Your task to perform on an android device: turn vacation reply on in the gmail app Image 0: 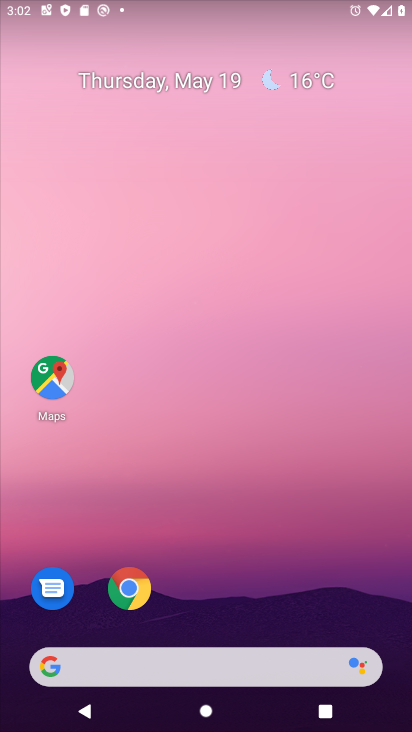
Step 0: drag from (223, 589) to (203, 80)
Your task to perform on an android device: turn vacation reply on in the gmail app Image 1: 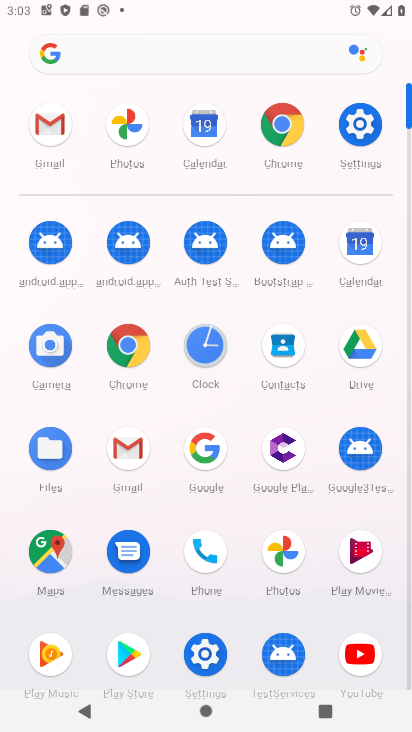
Step 1: click (47, 129)
Your task to perform on an android device: turn vacation reply on in the gmail app Image 2: 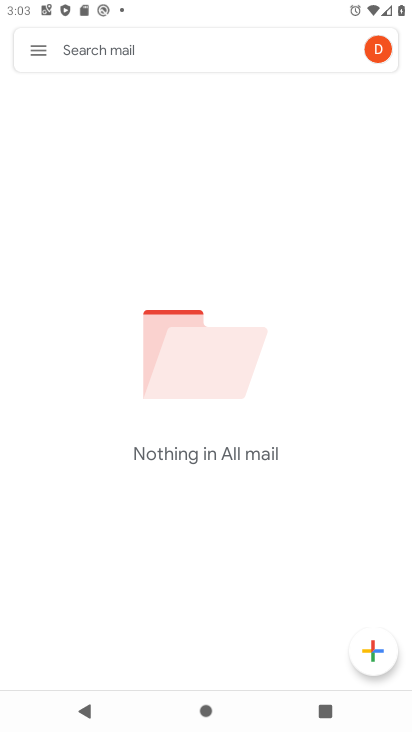
Step 2: click (39, 62)
Your task to perform on an android device: turn vacation reply on in the gmail app Image 3: 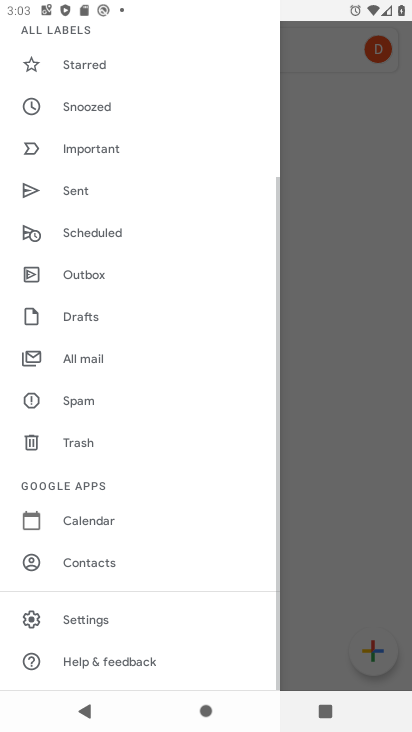
Step 3: click (102, 609)
Your task to perform on an android device: turn vacation reply on in the gmail app Image 4: 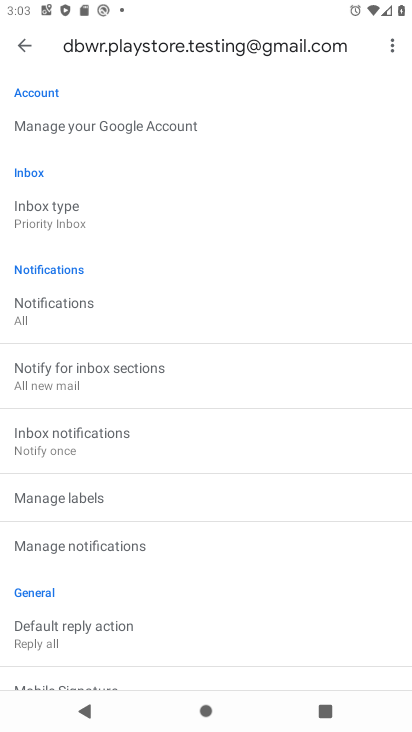
Step 4: drag from (128, 598) to (255, 108)
Your task to perform on an android device: turn vacation reply on in the gmail app Image 5: 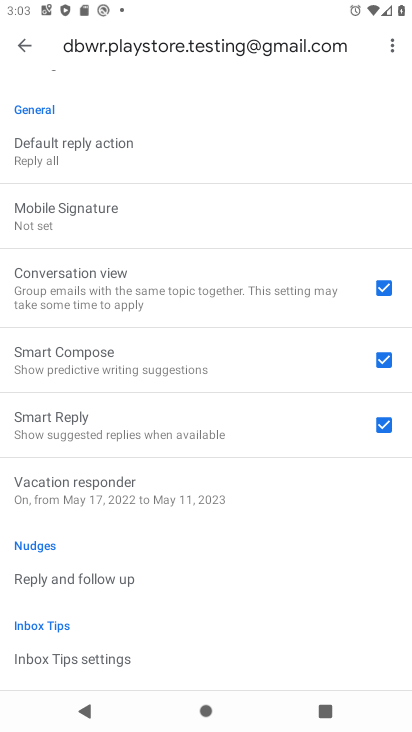
Step 5: click (181, 491)
Your task to perform on an android device: turn vacation reply on in the gmail app Image 6: 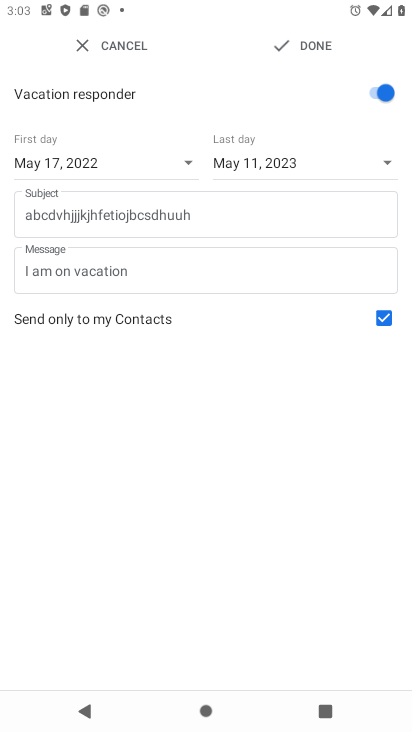
Step 6: task complete